Your task to perform on an android device: turn off sleep mode Image 0: 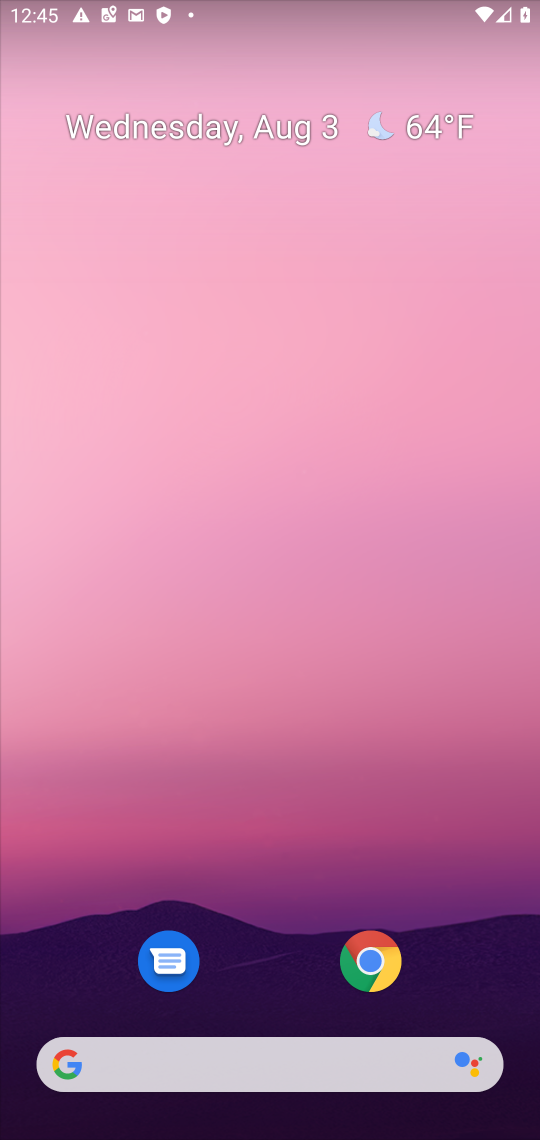
Step 0: drag from (267, 917) to (249, 74)
Your task to perform on an android device: turn off sleep mode Image 1: 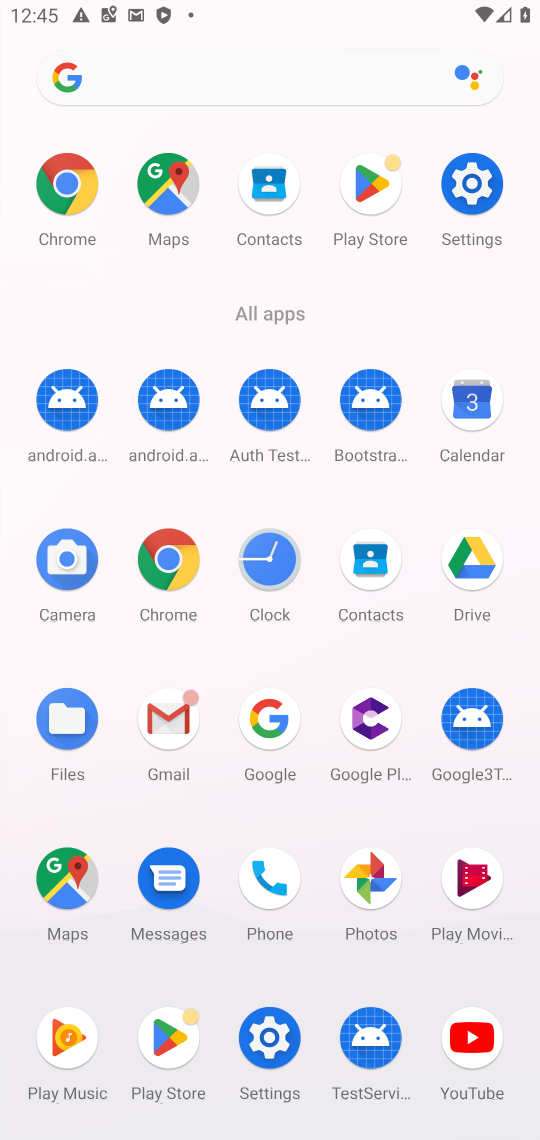
Step 1: click (473, 181)
Your task to perform on an android device: turn off sleep mode Image 2: 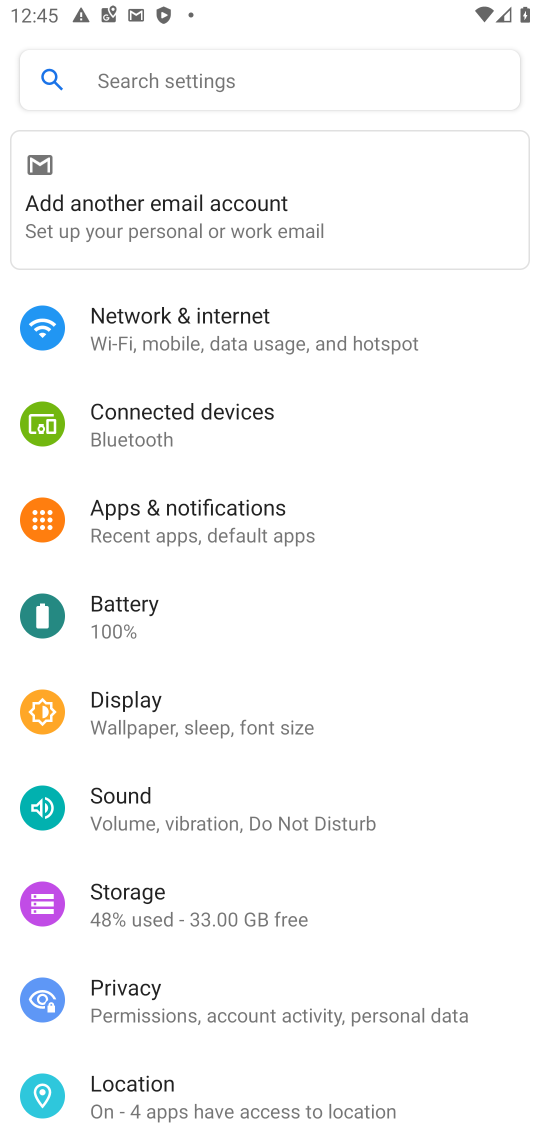
Step 2: click (106, 716)
Your task to perform on an android device: turn off sleep mode Image 3: 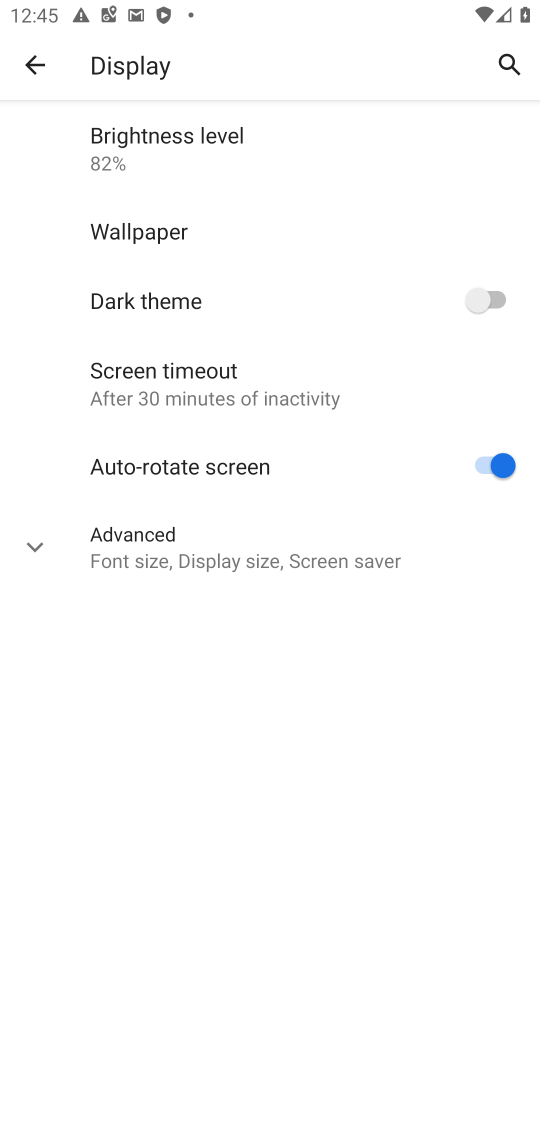
Step 3: click (37, 561)
Your task to perform on an android device: turn off sleep mode Image 4: 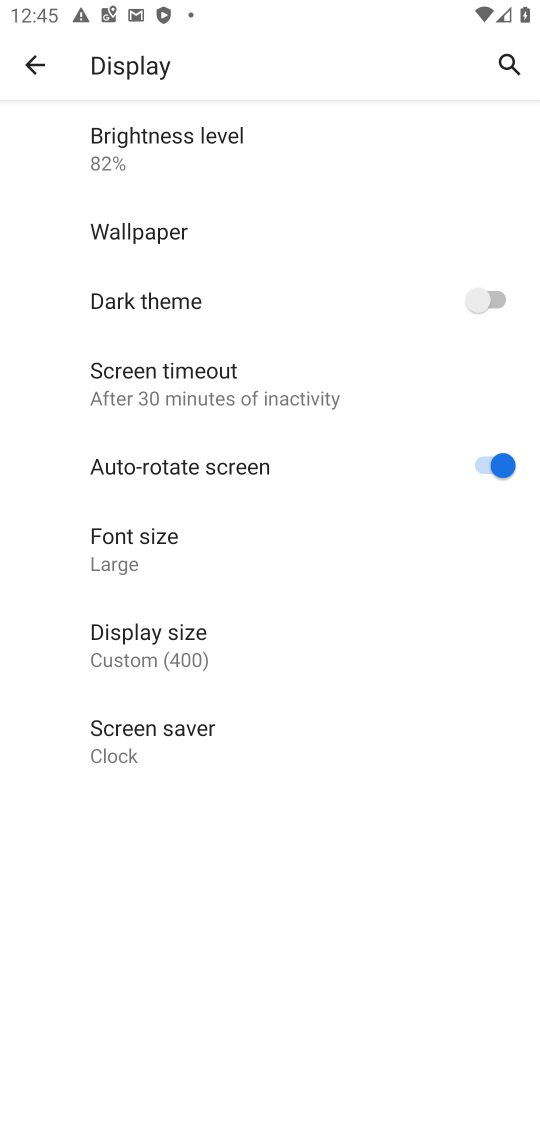
Step 4: task complete